Your task to perform on an android device: turn off smart reply in the gmail app Image 0: 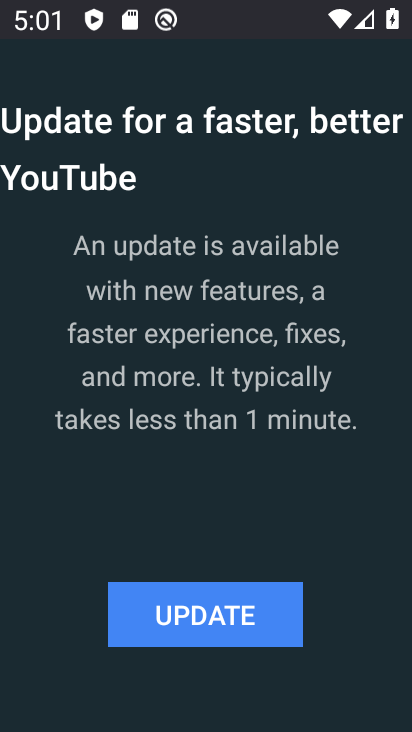
Step 0: press home button
Your task to perform on an android device: turn off smart reply in the gmail app Image 1: 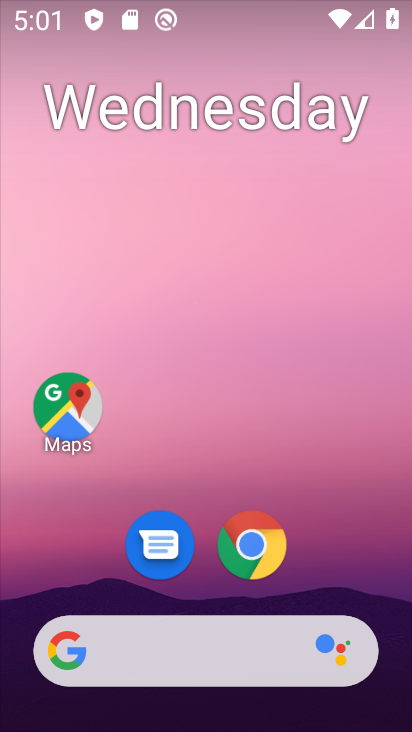
Step 1: drag from (323, 539) to (248, 133)
Your task to perform on an android device: turn off smart reply in the gmail app Image 2: 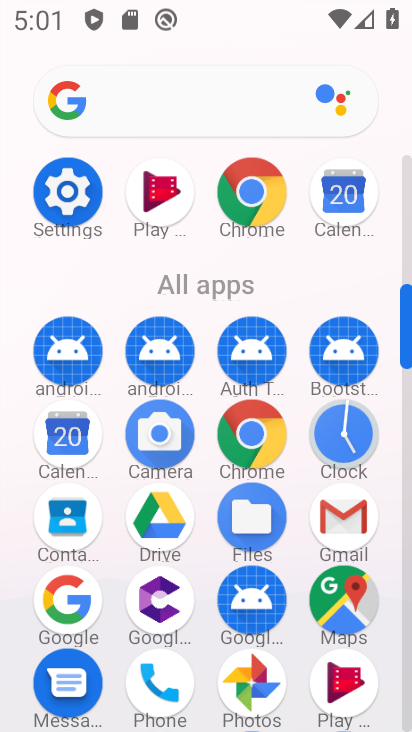
Step 2: click (342, 515)
Your task to perform on an android device: turn off smart reply in the gmail app Image 3: 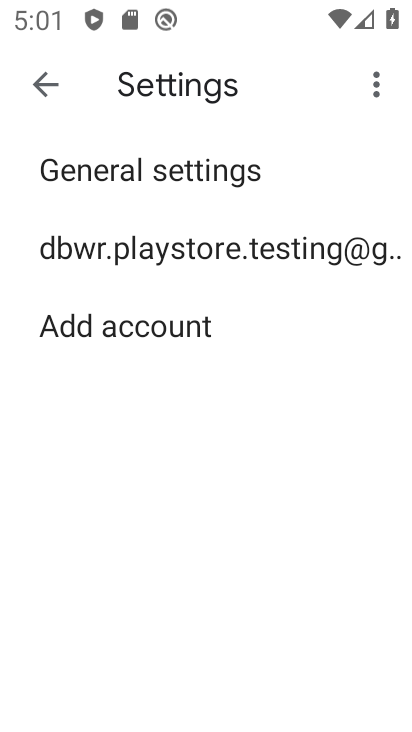
Step 3: click (274, 250)
Your task to perform on an android device: turn off smart reply in the gmail app Image 4: 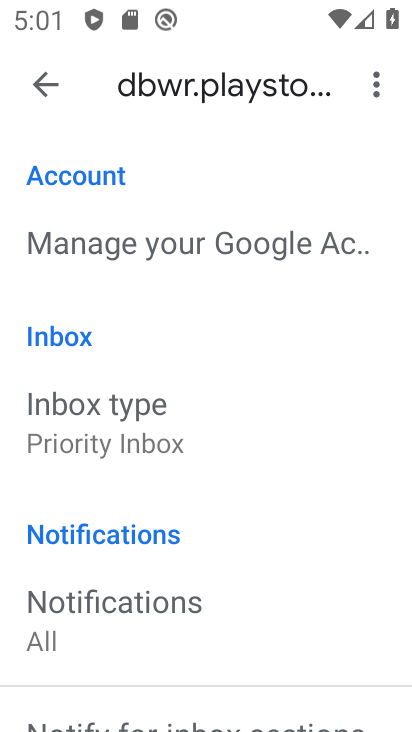
Step 4: drag from (210, 577) to (257, 260)
Your task to perform on an android device: turn off smart reply in the gmail app Image 5: 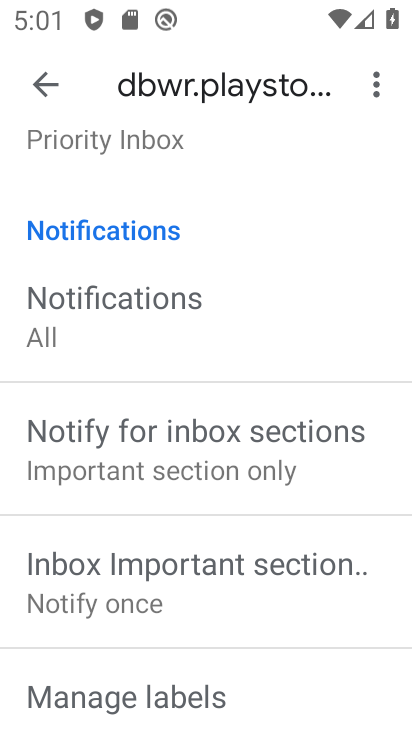
Step 5: drag from (218, 553) to (270, 66)
Your task to perform on an android device: turn off smart reply in the gmail app Image 6: 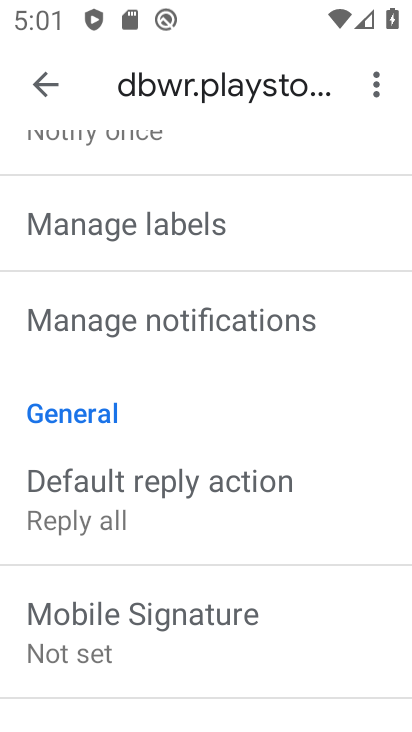
Step 6: drag from (238, 558) to (280, 122)
Your task to perform on an android device: turn off smart reply in the gmail app Image 7: 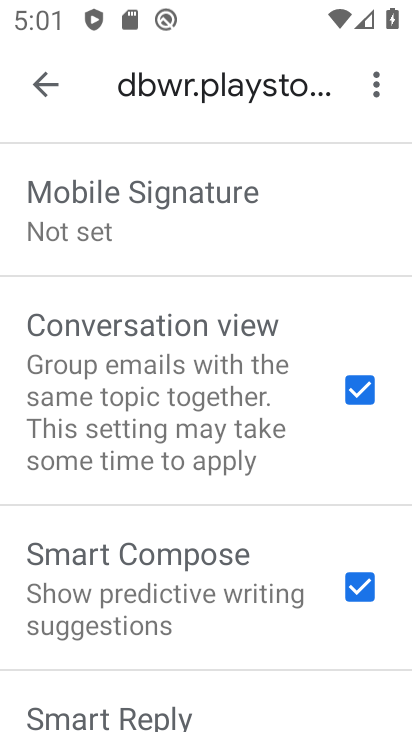
Step 7: drag from (258, 225) to (270, 165)
Your task to perform on an android device: turn off smart reply in the gmail app Image 8: 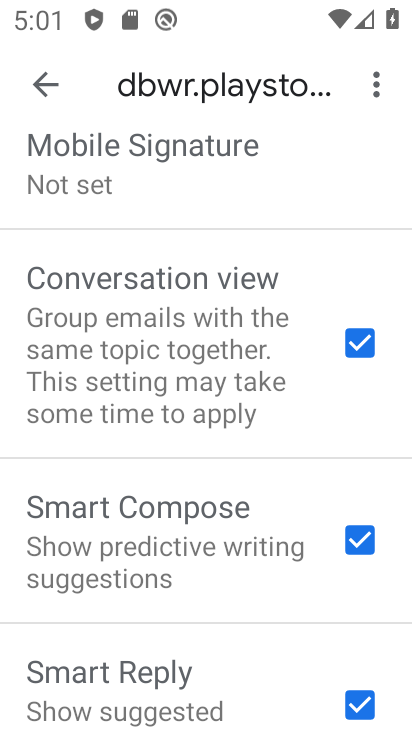
Step 8: click (363, 705)
Your task to perform on an android device: turn off smart reply in the gmail app Image 9: 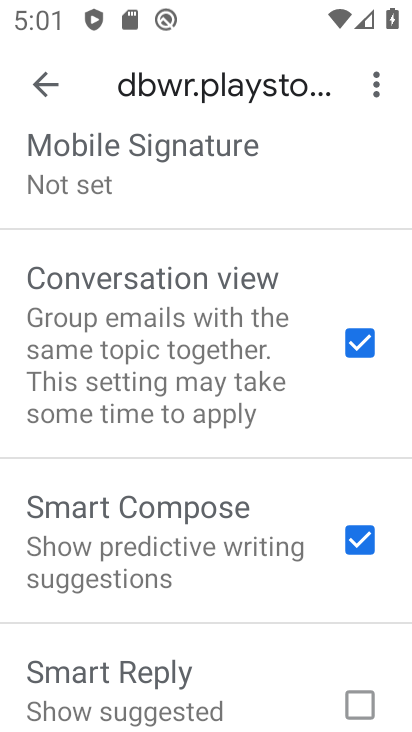
Step 9: task complete